Your task to perform on an android device: turn off airplane mode Image 0: 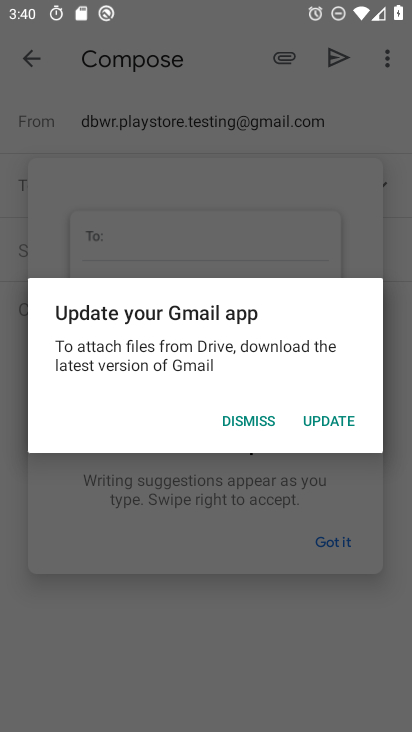
Step 0: press home button
Your task to perform on an android device: turn off airplane mode Image 1: 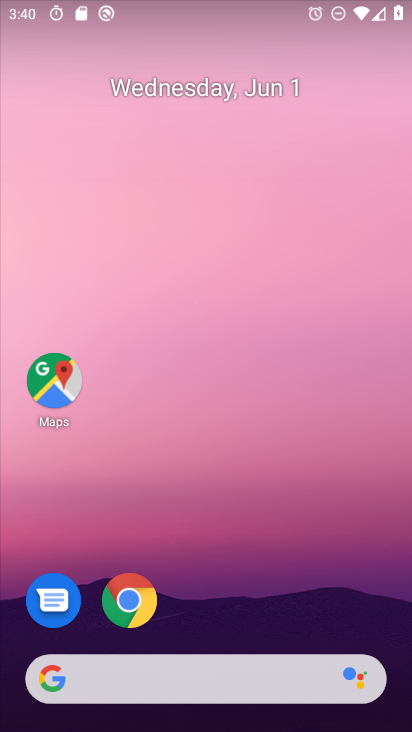
Step 1: drag from (205, 628) to (203, 258)
Your task to perform on an android device: turn off airplane mode Image 2: 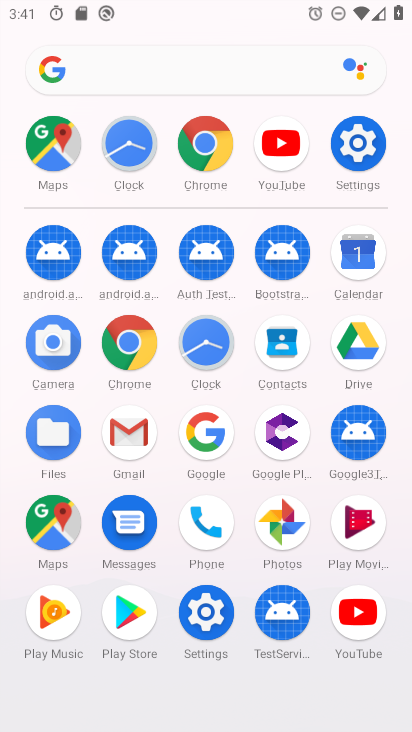
Step 2: click (358, 142)
Your task to perform on an android device: turn off airplane mode Image 3: 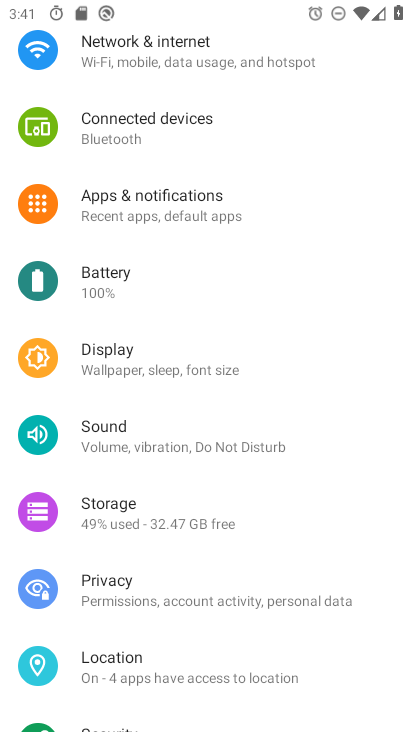
Step 3: click (143, 58)
Your task to perform on an android device: turn off airplane mode Image 4: 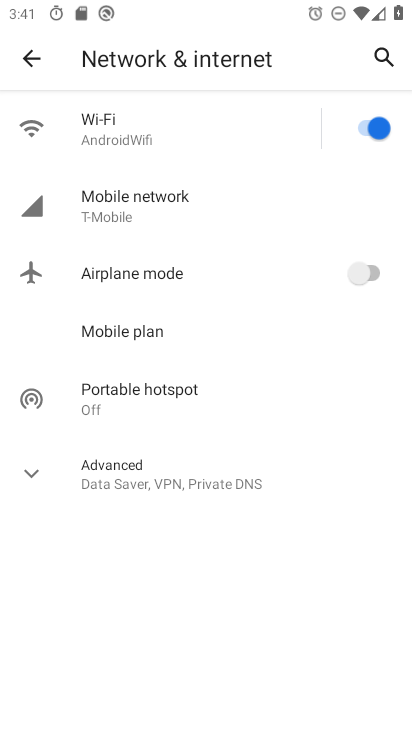
Step 4: task complete